Your task to perform on an android device: Go to Android settings Image 0: 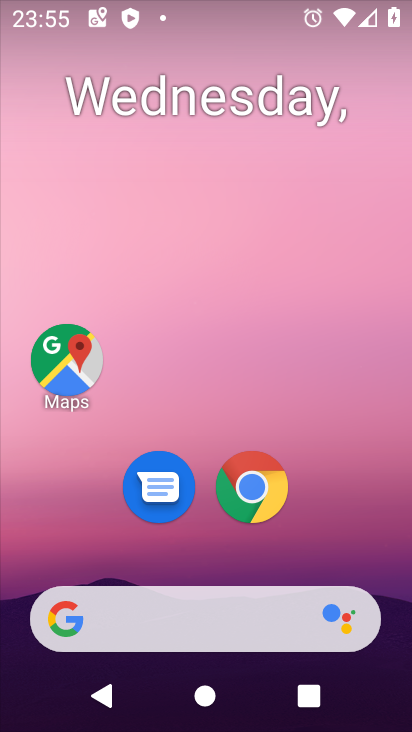
Step 0: drag from (354, 580) to (353, 10)
Your task to perform on an android device: Go to Android settings Image 1: 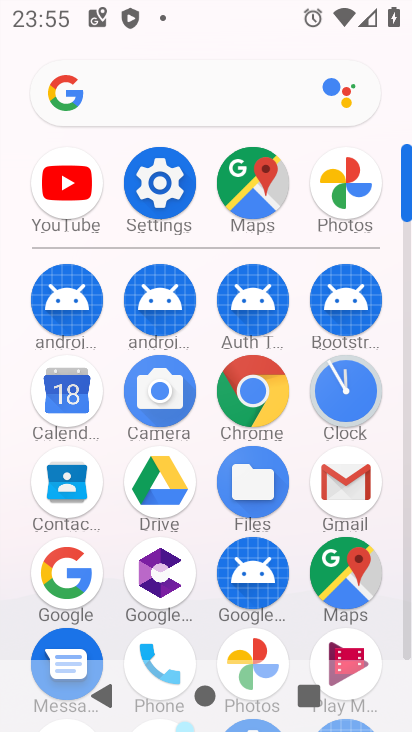
Step 1: click (159, 183)
Your task to perform on an android device: Go to Android settings Image 2: 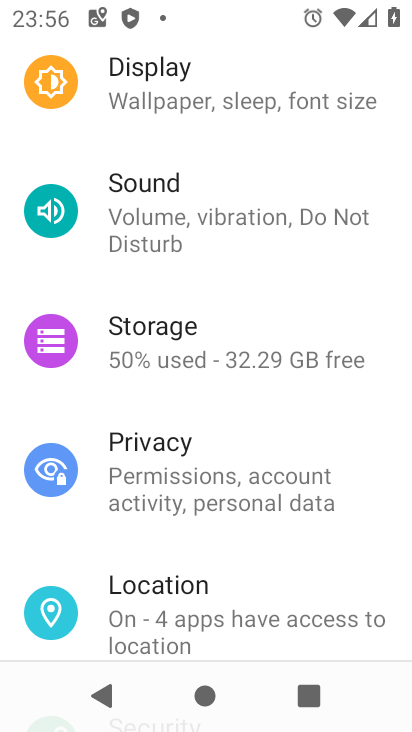
Step 2: task complete